Your task to perform on an android device: set the timer Image 0: 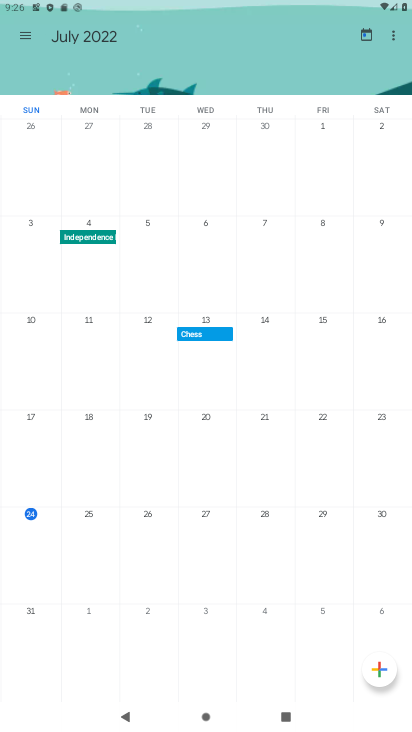
Step 0: task complete